Your task to perform on an android device: Open eBay Image 0: 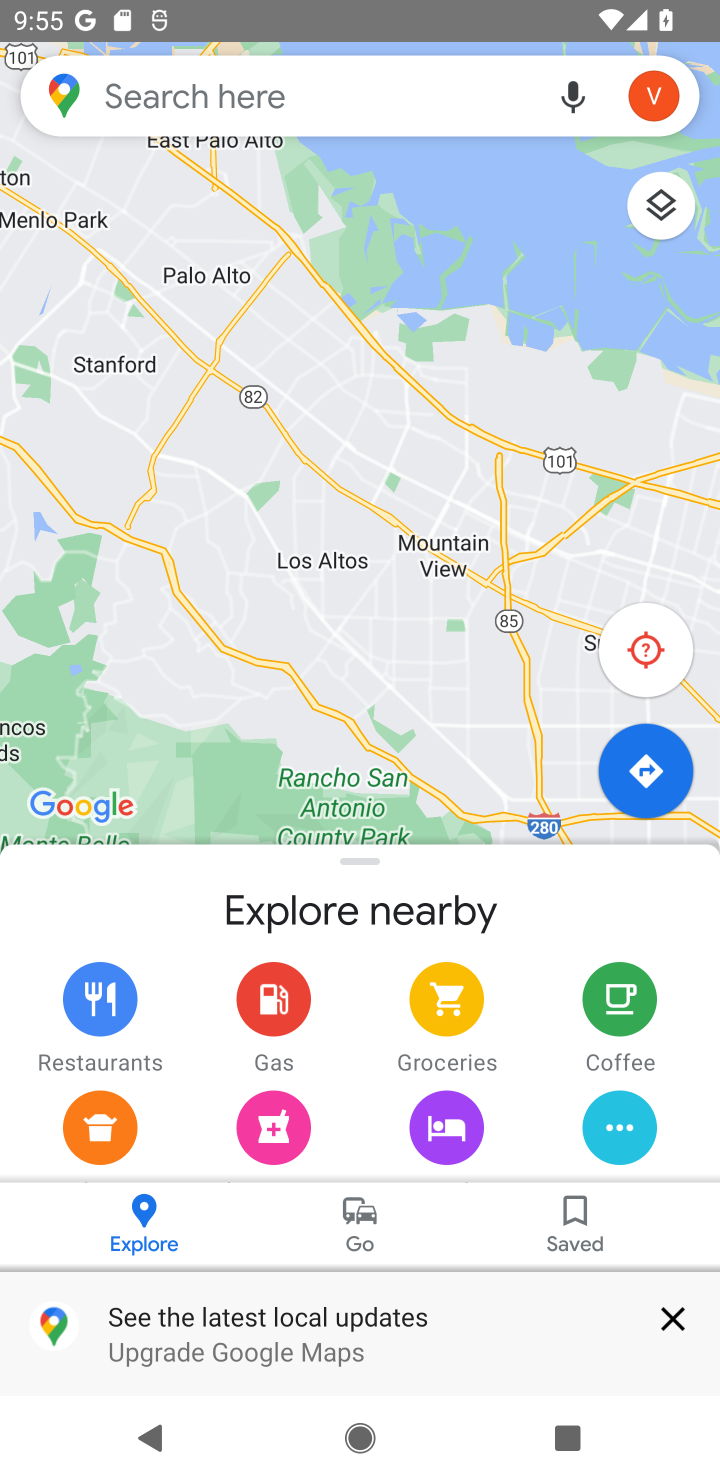
Step 0: press home button
Your task to perform on an android device: Open eBay Image 1: 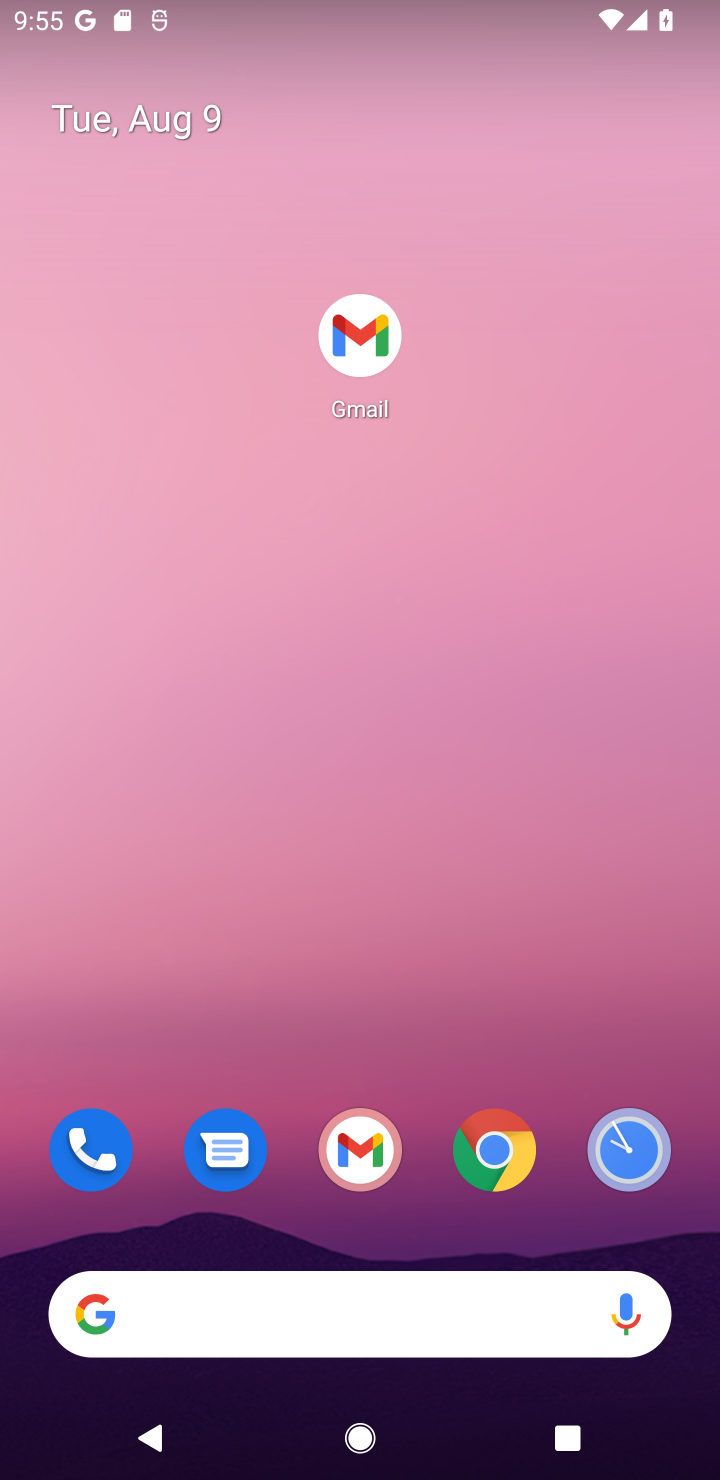
Step 1: click (490, 1169)
Your task to perform on an android device: Open eBay Image 2: 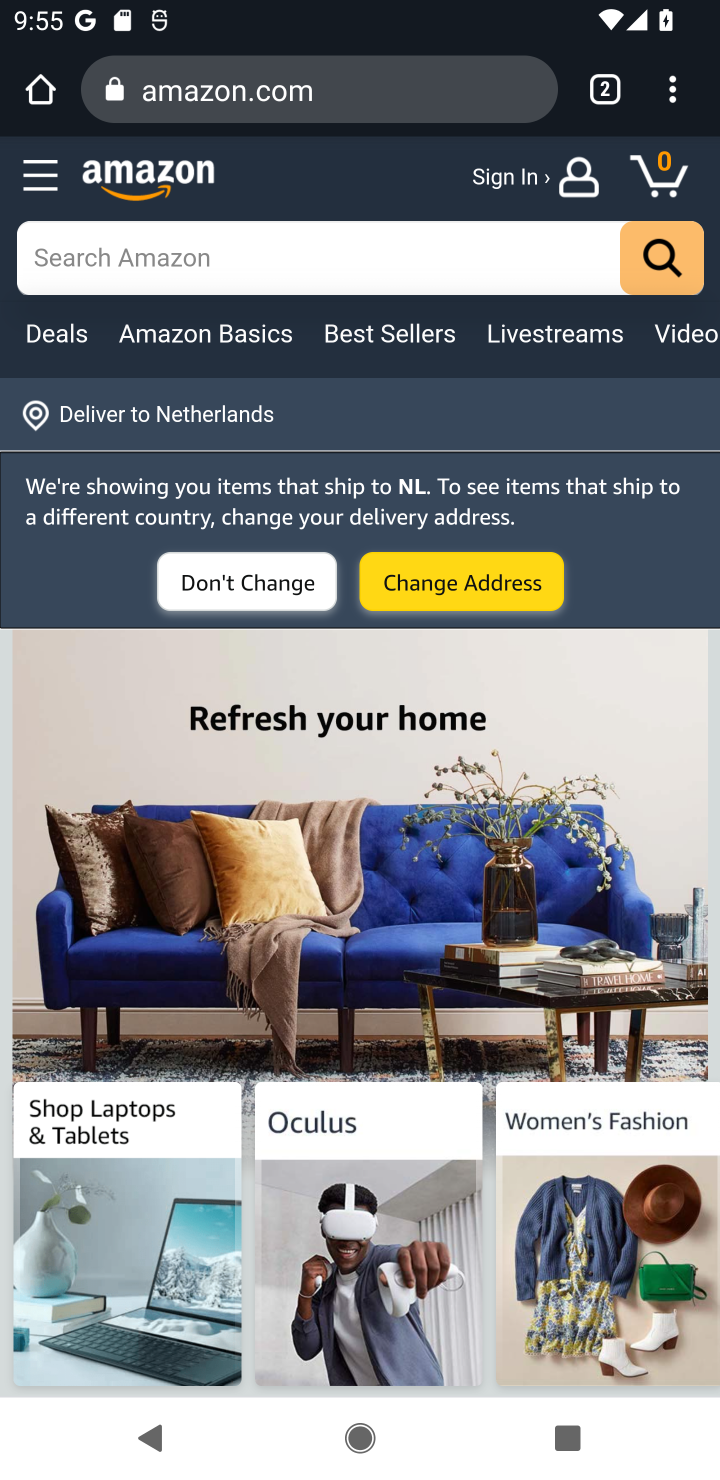
Step 2: click (289, 104)
Your task to perform on an android device: Open eBay Image 3: 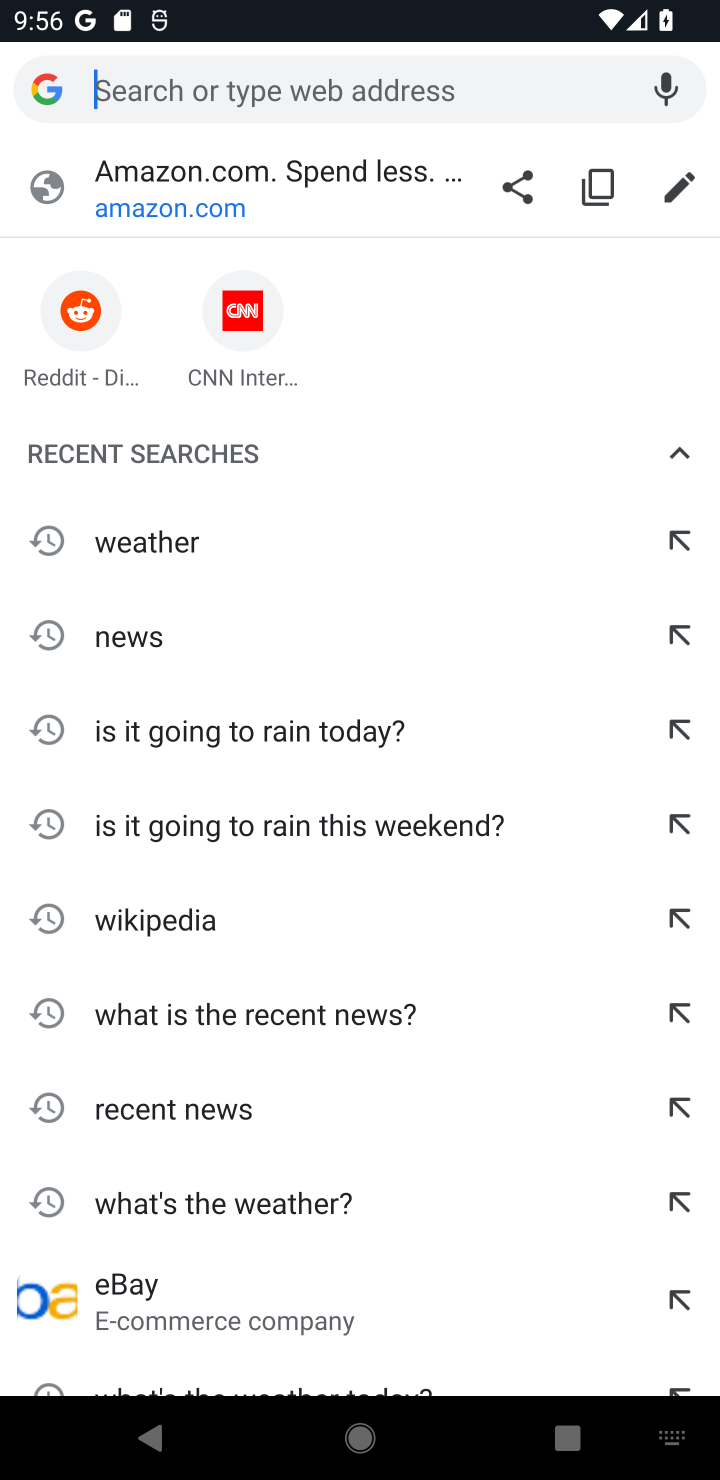
Step 3: type "ebay"
Your task to perform on an android device: Open eBay Image 4: 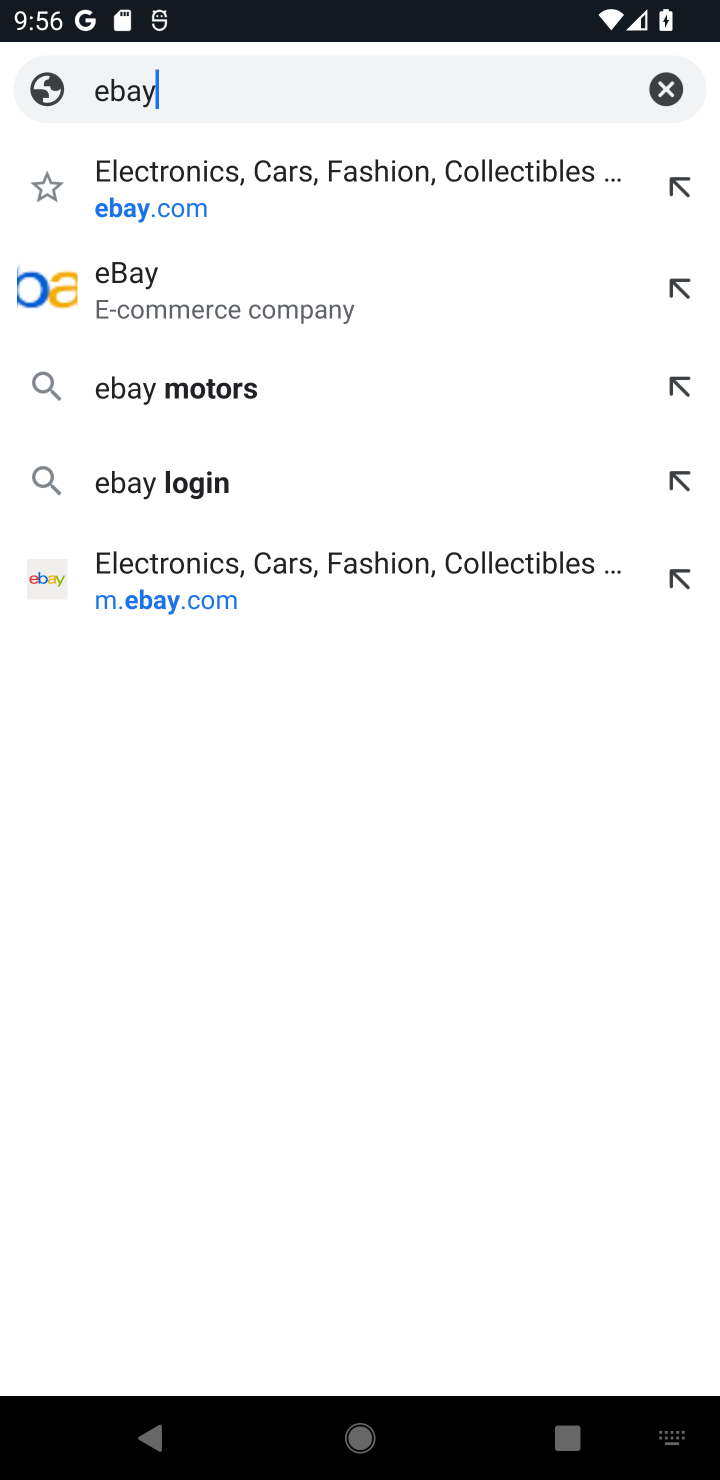
Step 4: click (369, 272)
Your task to perform on an android device: Open eBay Image 5: 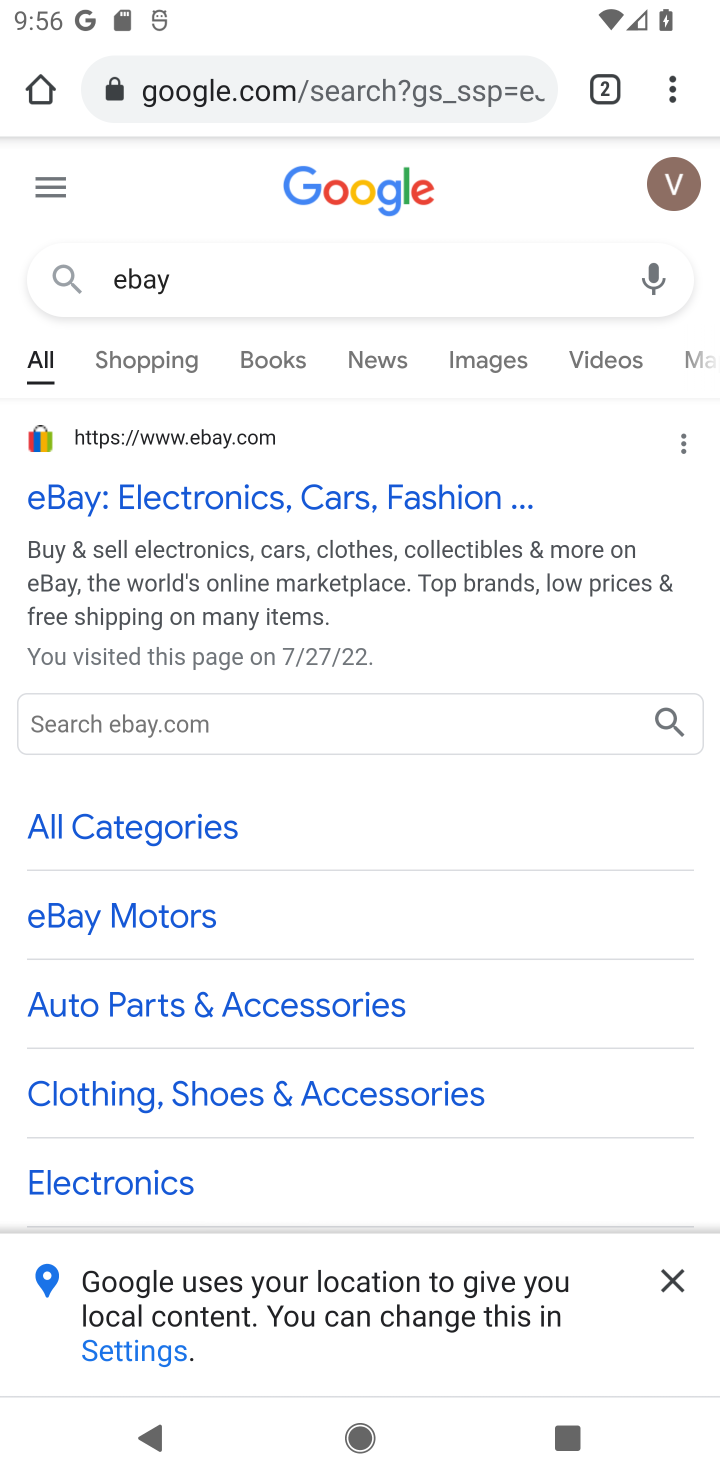
Step 5: click (346, 499)
Your task to perform on an android device: Open eBay Image 6: 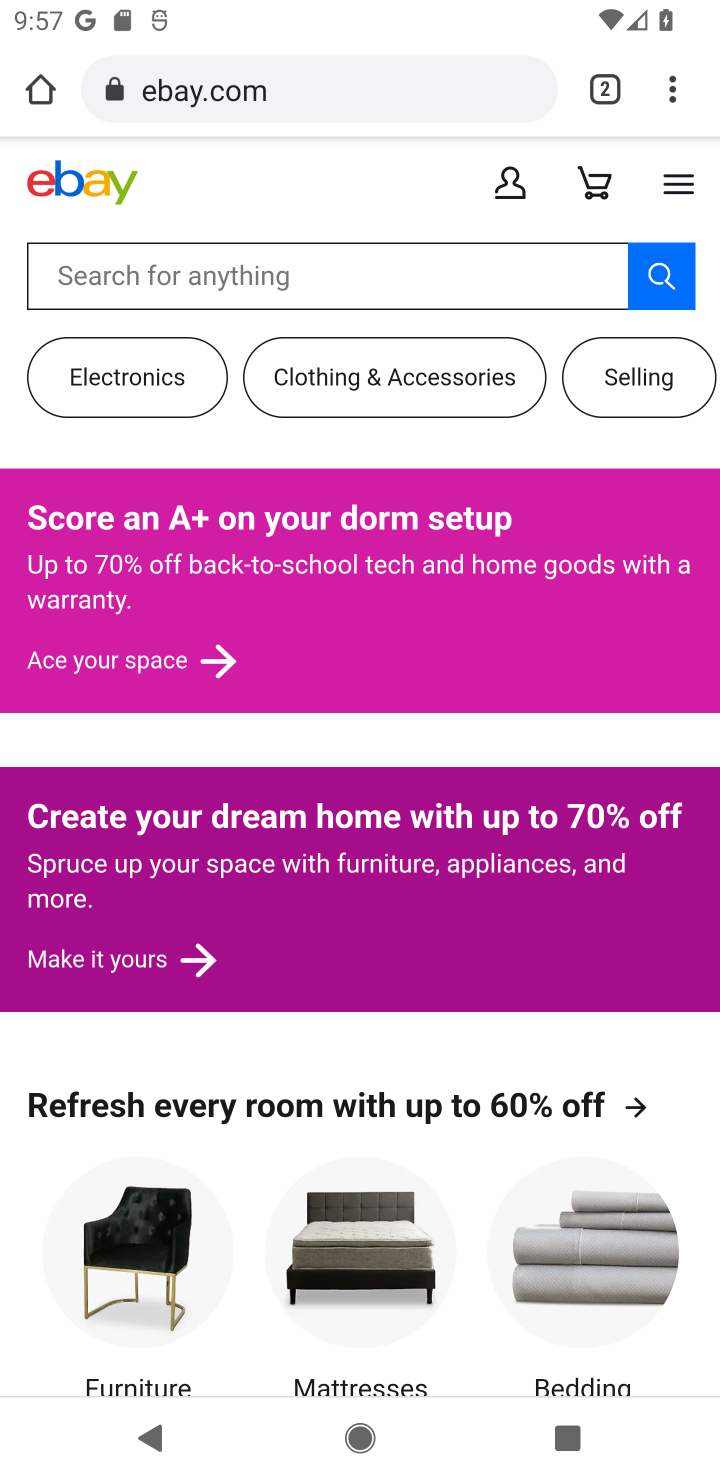
Step 6: task complete